Your task to perform on an android device: Open Google Maps and go to "Timeline" Image 0: 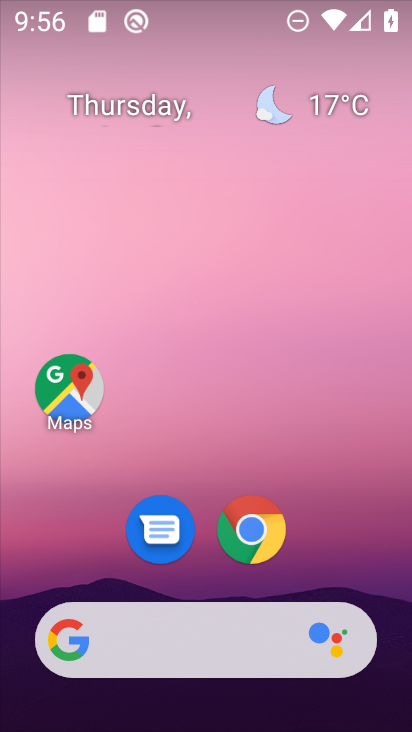
Step 0: click (83, 388)
Your task to perform on an android device: Open Google Maps and go to "Timeline" Image 1: 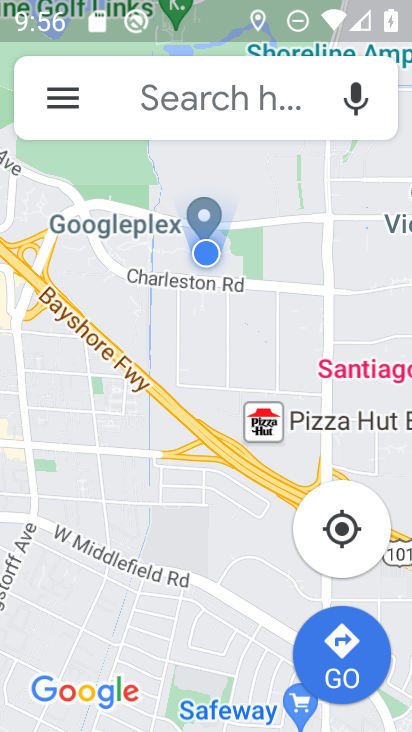
Step 1: click (58, 97)
Your task to perform on an android device: Open Google Maps and go to "Timeline" Image 2: 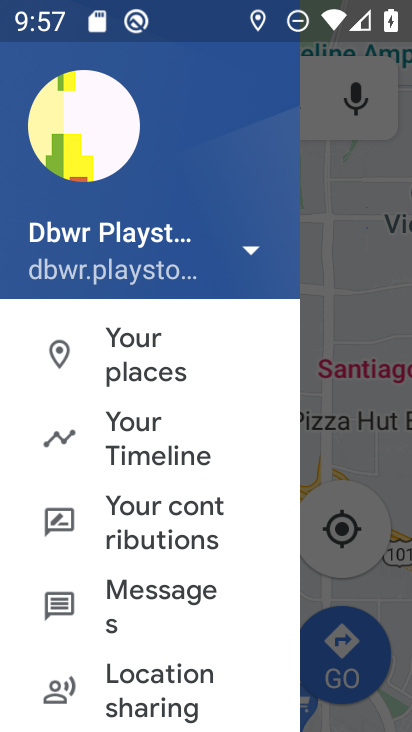
Step 2: click (111, 439)
Your task to perform on an android device: Open Google Maps and go to "Timeline" Image 3: 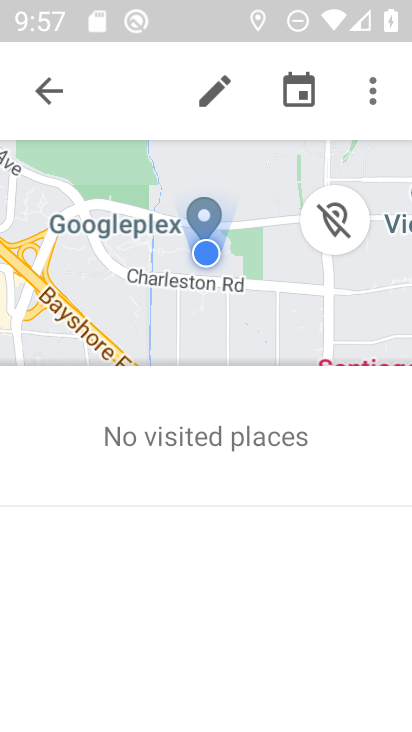
Step 3: task complete